Your task to perform on an android device: Open Google Chrome Image 0: 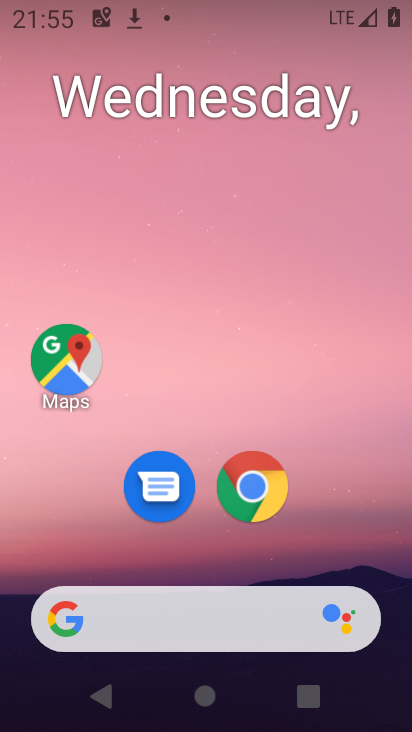
Step 0: click (266, 499)
Your task to perform on an android device: Open Google Chrome Image 1: 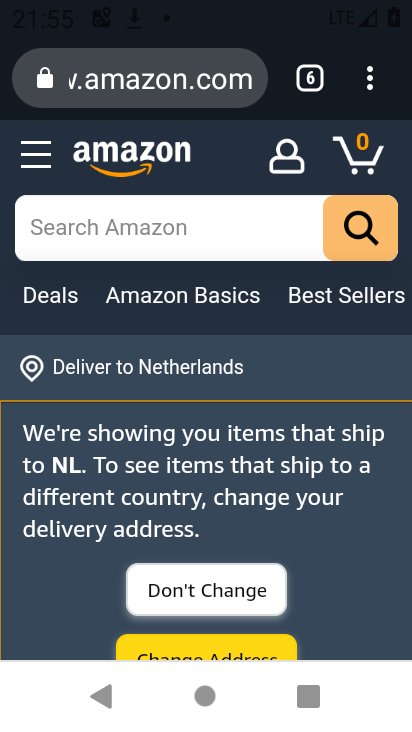
Step 1: task complete